Your task to perform on an android device: Go to sound settings Image 0: 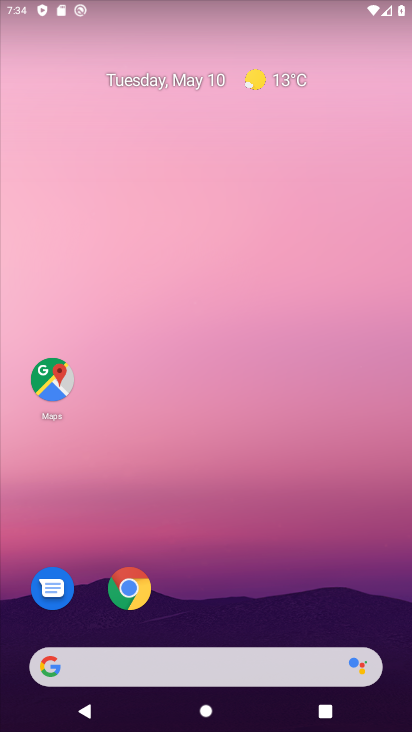
Step 0: drag from (175, 616) to (243, 12)
Your task to perform on an android device: Go to sound settings Image 1: 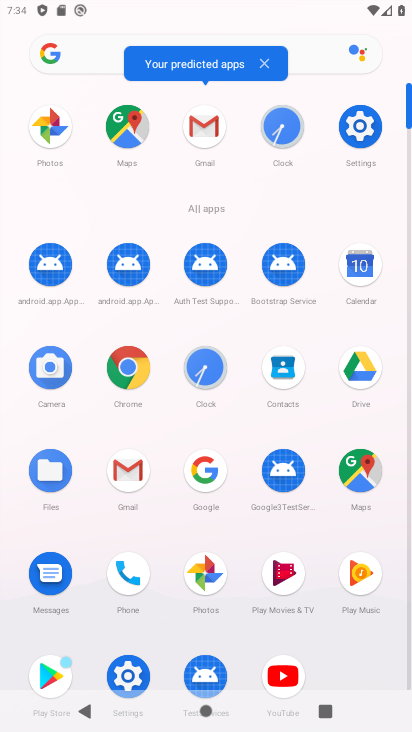
Step 1: click (372, 128)
Your task to perform on an android device: Go to sound settings Image 2: 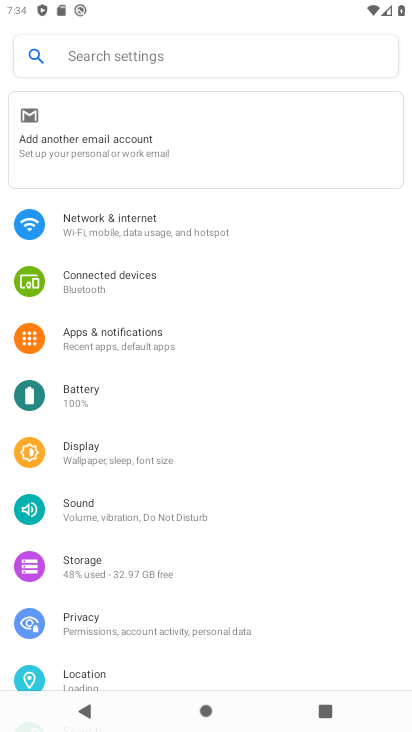
Step 2: click (114, 521)
Your task to perform on an android device: Go to sound settings Image 3: 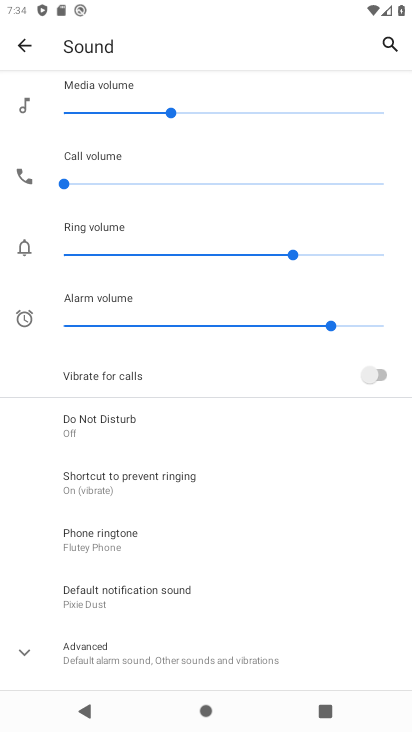
Step 3: task complete